Your task to perform on an android device: Open Yahoo.com Image 0: 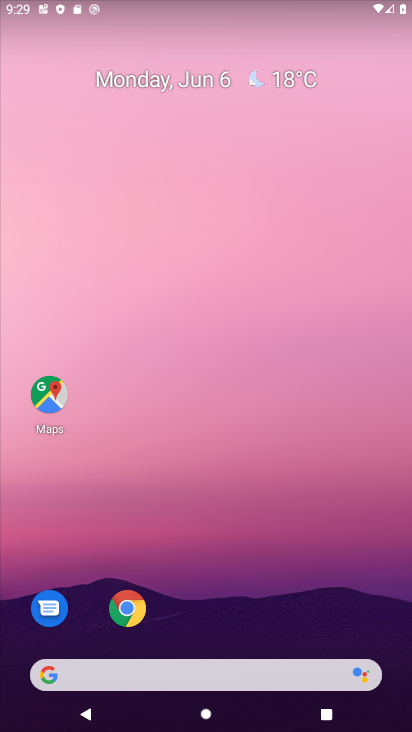
Step 0: click (129, 611)
Your task to perform on an android device: Open Yahoo.com Image 1: 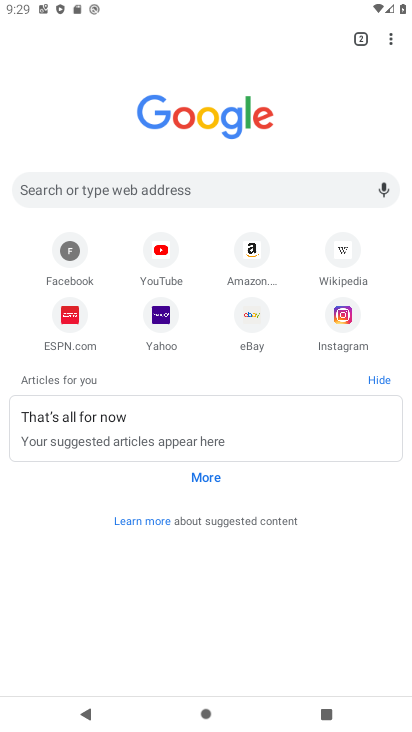
Step 1: click (187, 195)
Your task to perform on an android device: Open Yahoo.com Image 2: 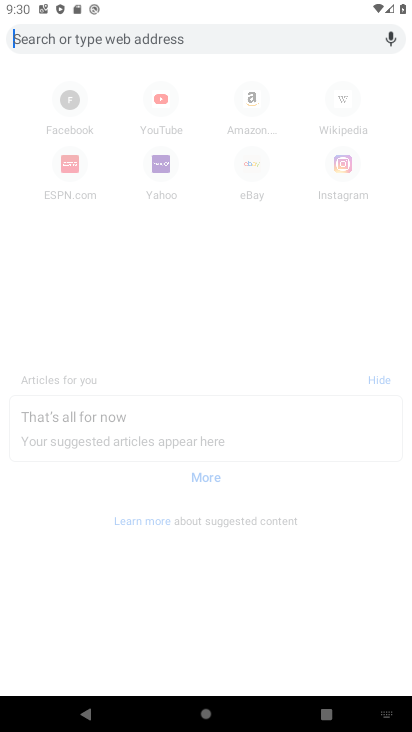
Step 2: click (164, 176)
Your task to perform on an android device: Open Yahoo.com Image 3: 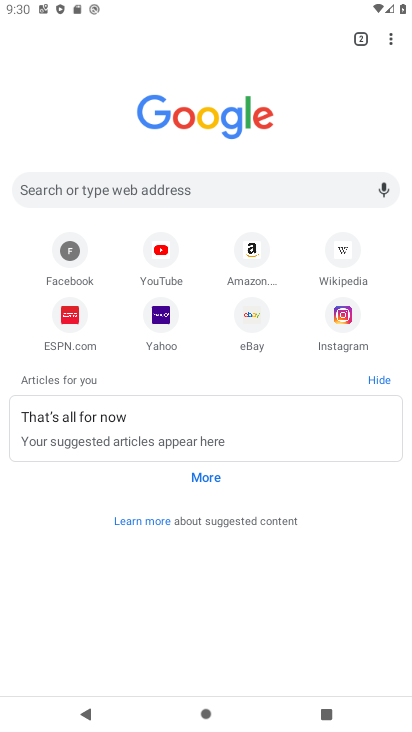
Step 3: click (168, 308)
Your task to perform on an android device: Open Yahoo.com Image 4: 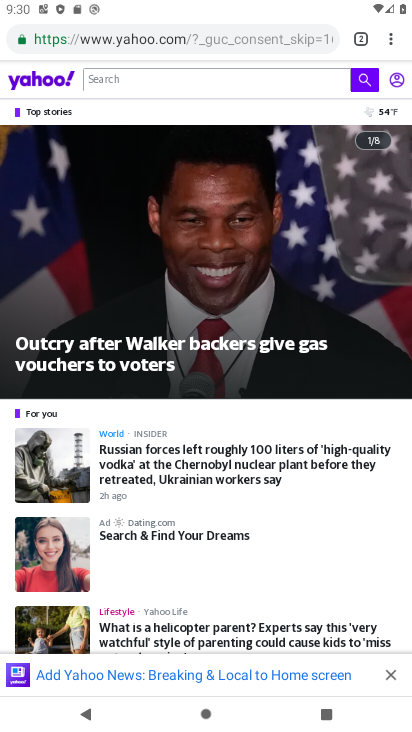
Step 4: task complete